Your task to perform on an android device: What's the weather going to be this weekend? Image 0: 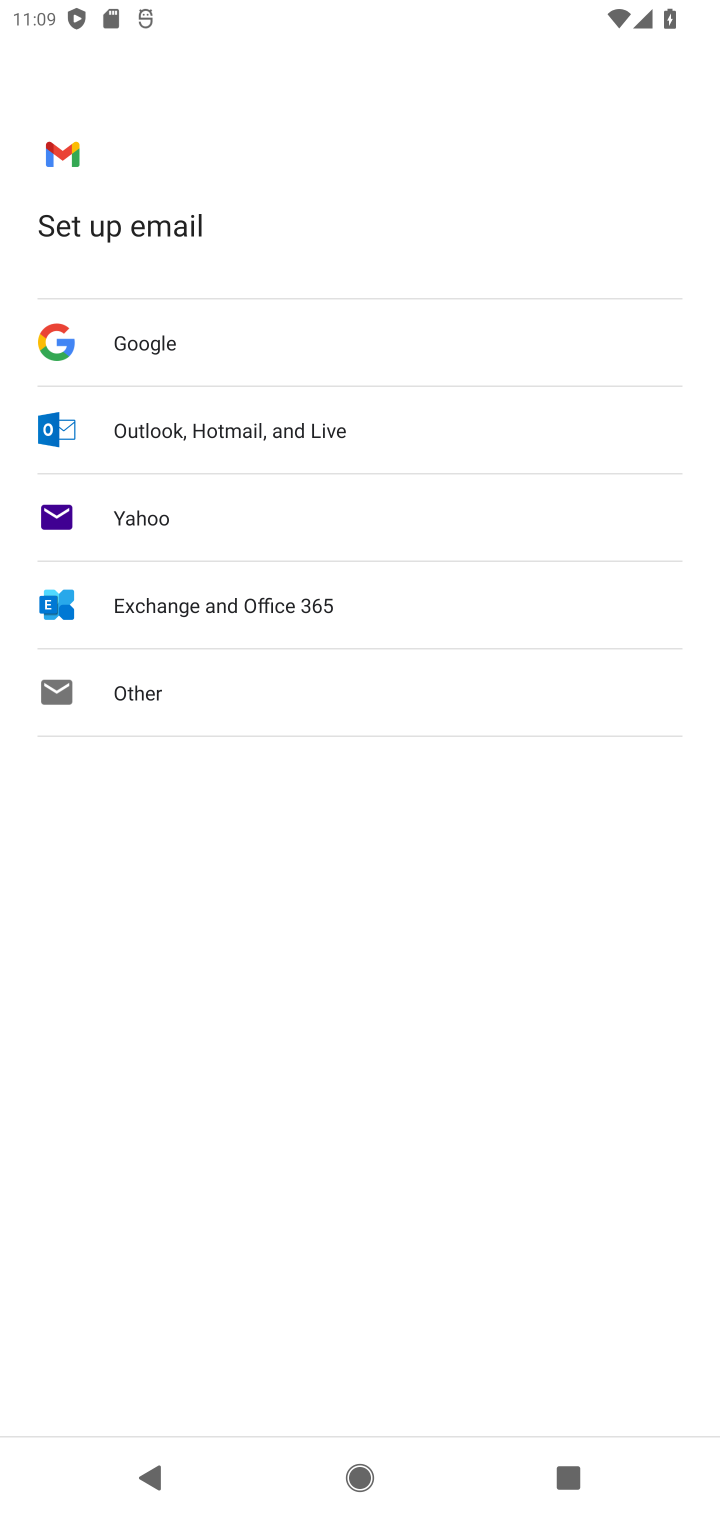
Step 0: press home button
Your task to perform on an android device: What's the weather going to be this weekend? Image 1: 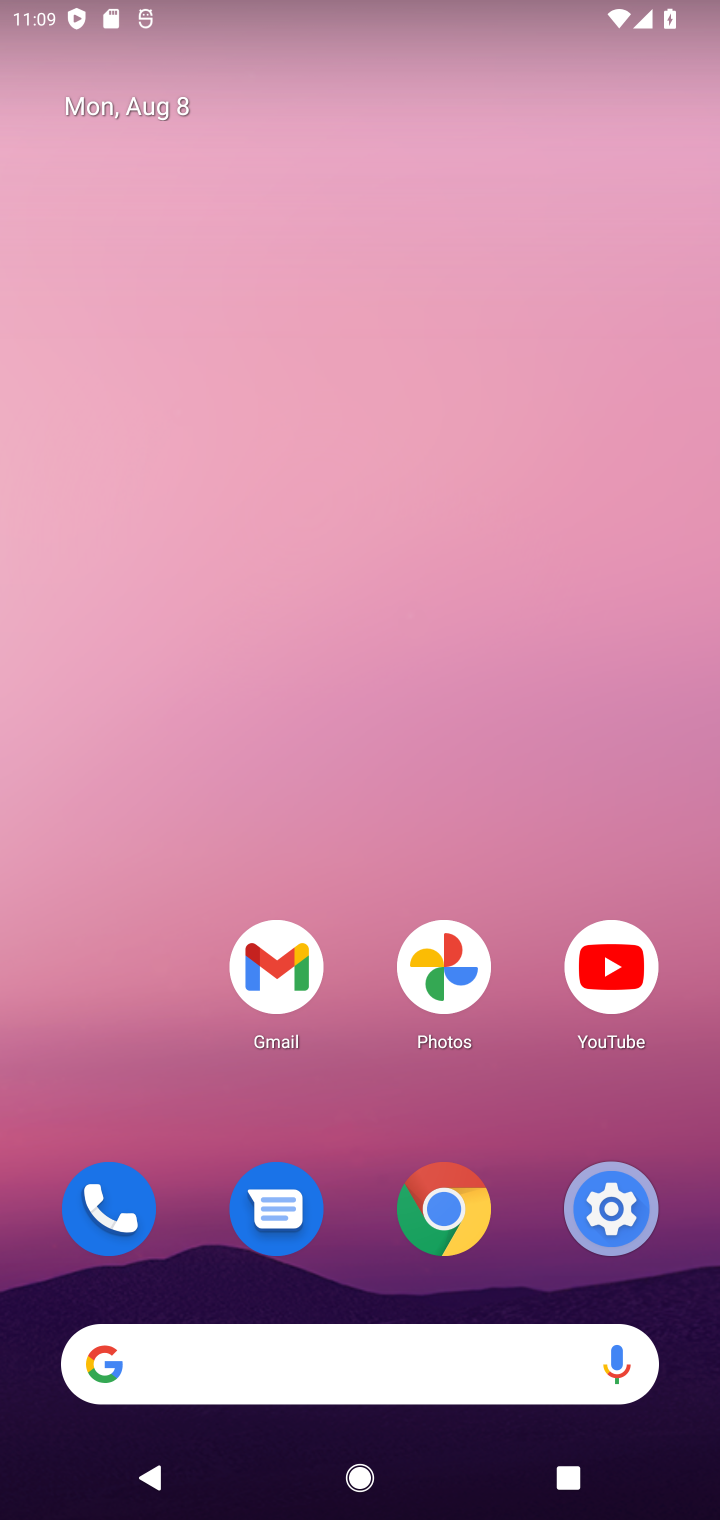
Step 1: click (213, 1361)
Your task to perform on an android device: What's the weather going to be this weekend? Image 2: 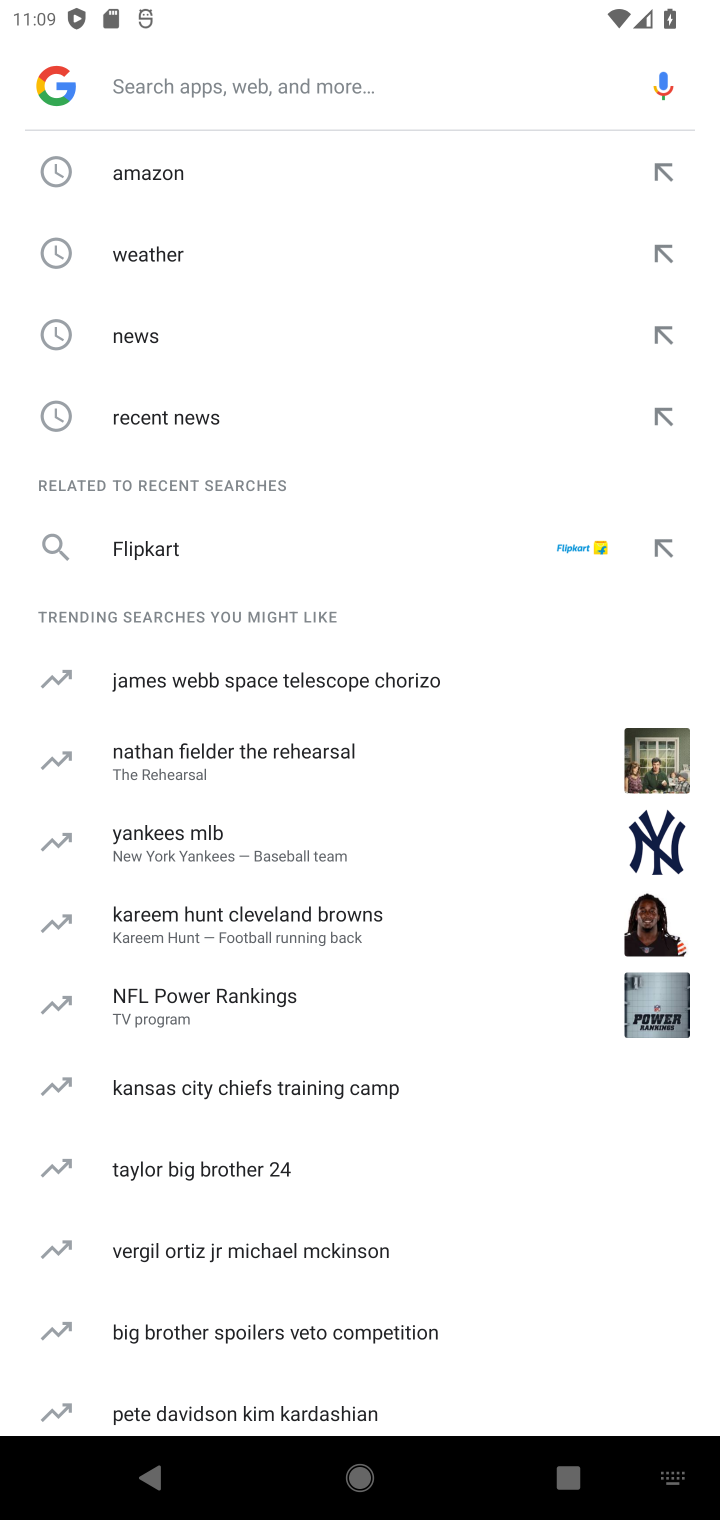
Step 2: type "What's the weather going to be this weekend?"
Your task to perform on an android device: What's the weather going to be this weekend? Image 3: 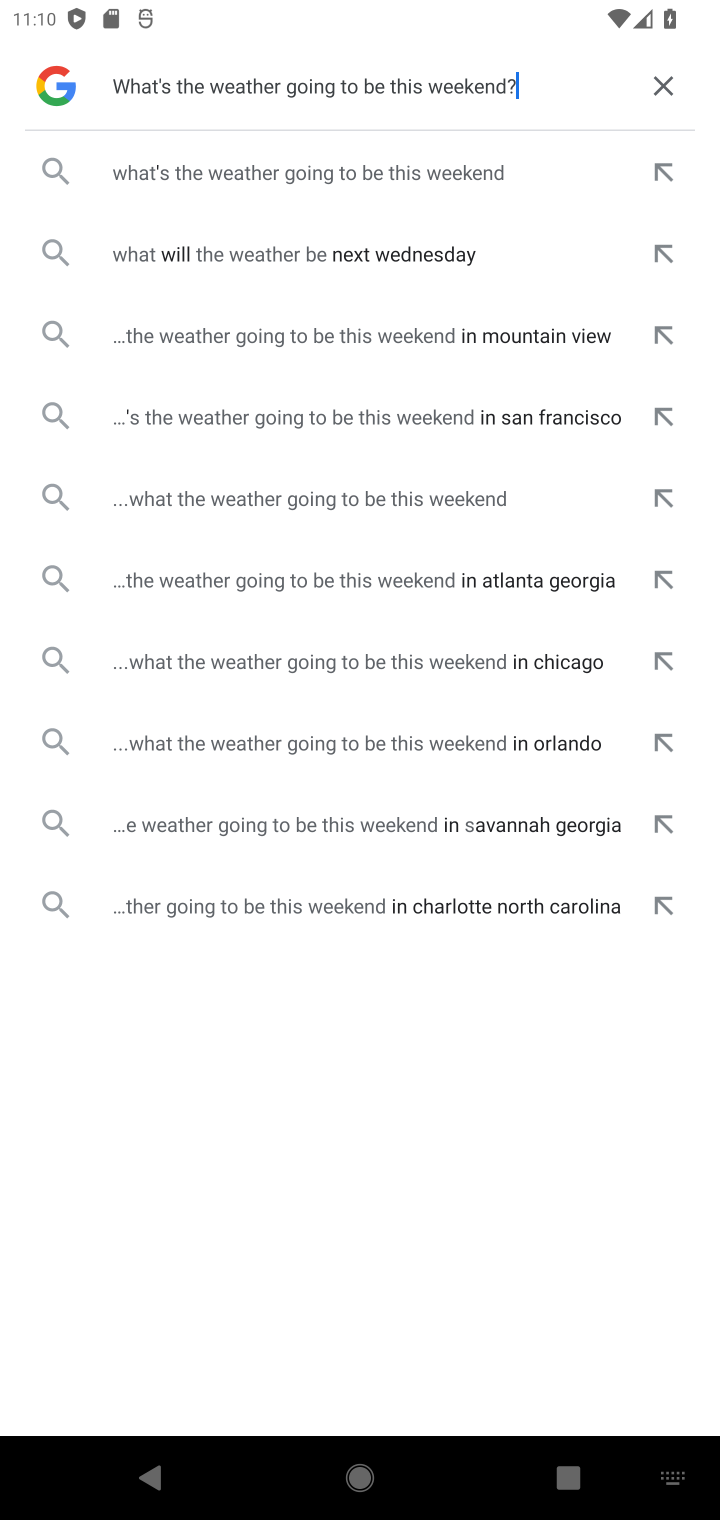
Step 3: click (387, 190)
Your task to perform on an android device: What's the weather going to be this weekend? Image 4: 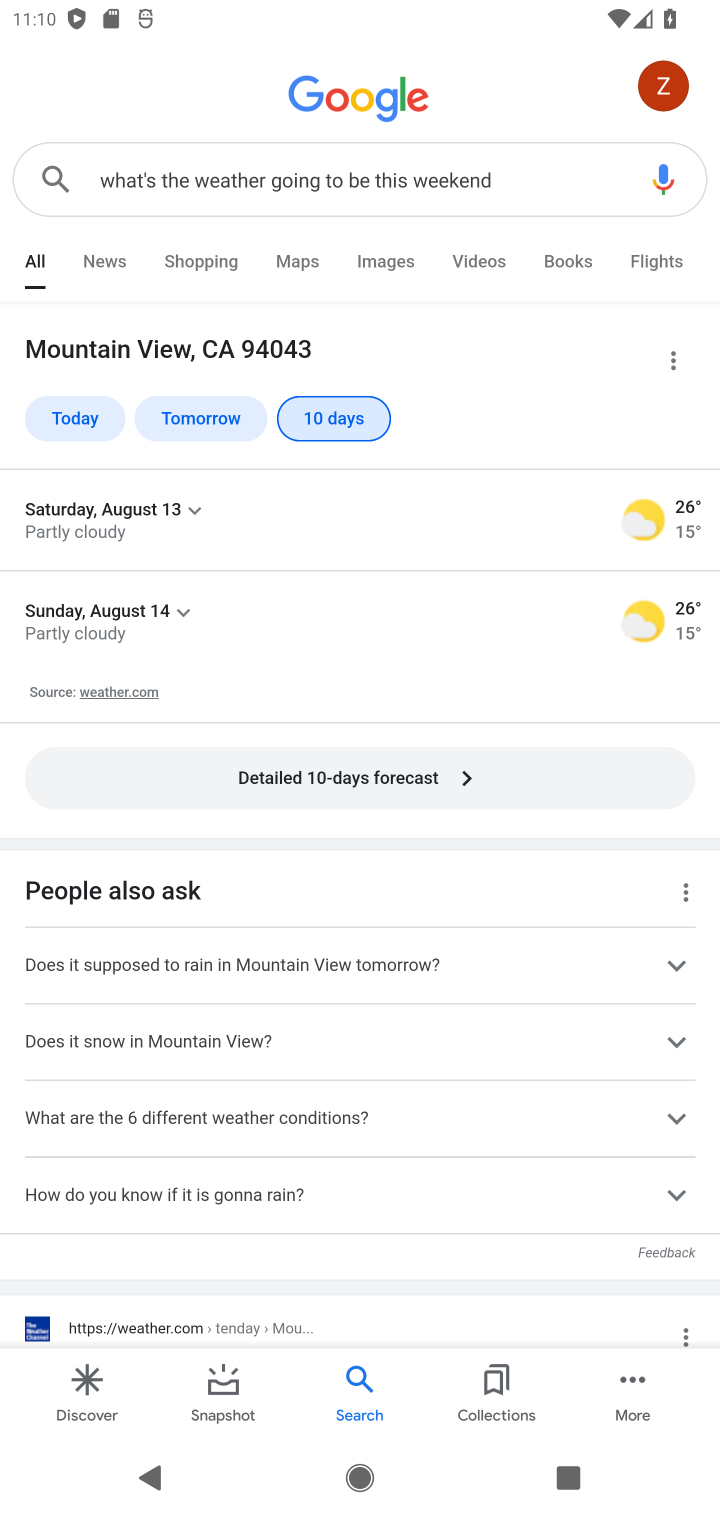
Step 4: task complete